Your task to perform on an android device: Open the Play Movies app and select the watchlist tab. Image 0: 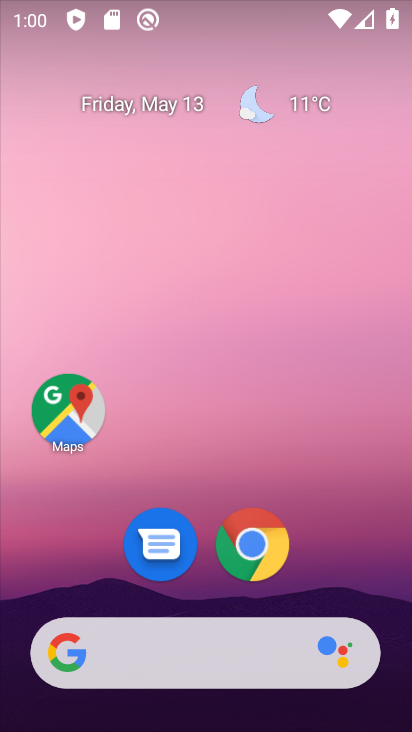
Step 0: drag from (209, 572) to (268, 227)
Your task to perform on an android device: Open the Play Movies app and select the watchlist tab. Image 1: 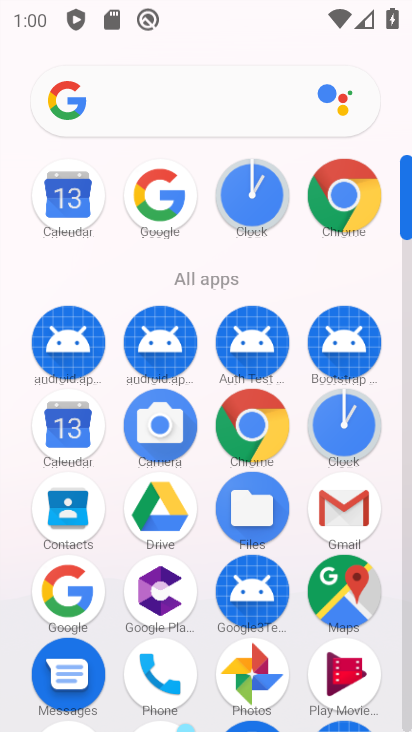
Step 1: drag from (298, 622) to (371, 277)
Your task to perform on an android device: Open the Play Movies app and select the watchlist tab. Image 2: 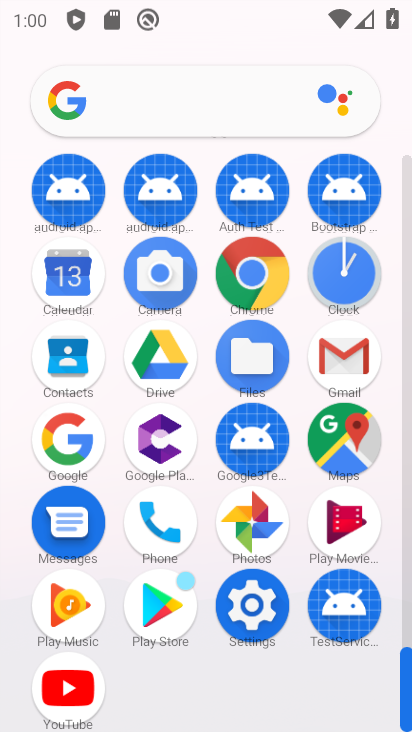
Step 2: click (342, 522)
Your task to perform on an android device: Open the Play Movies app and select the watchlist tab. Image 3: 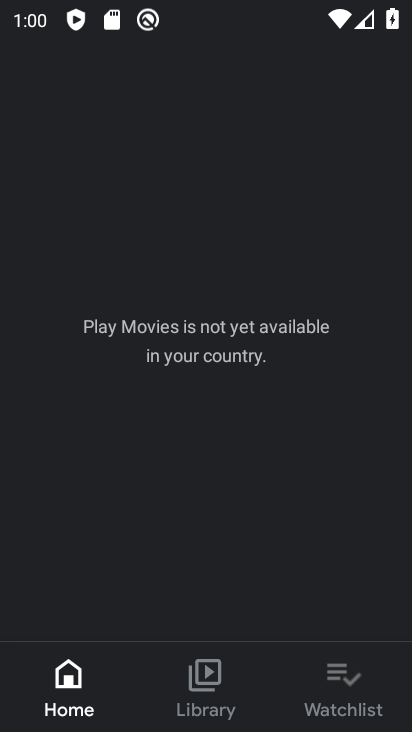
Step 3: click (350, 695)
Your task to perform on an android device: Open the Play Movies app and select the watchlist tab. Image 4: 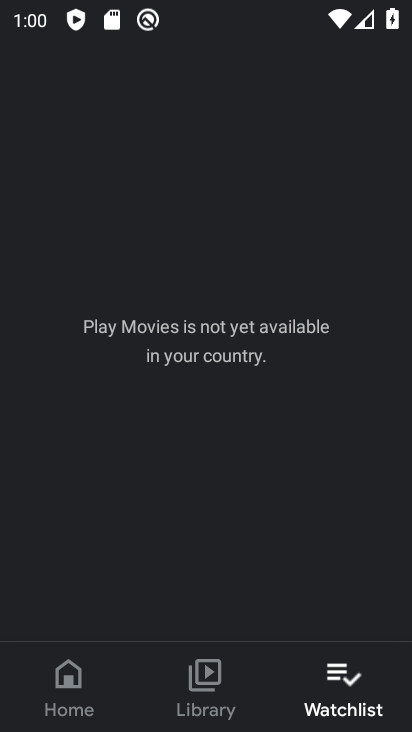
Step 4: task complete